Your task to perform on an android device: Open Google Chrome and click the shortcut for Amazon.com Image 0: 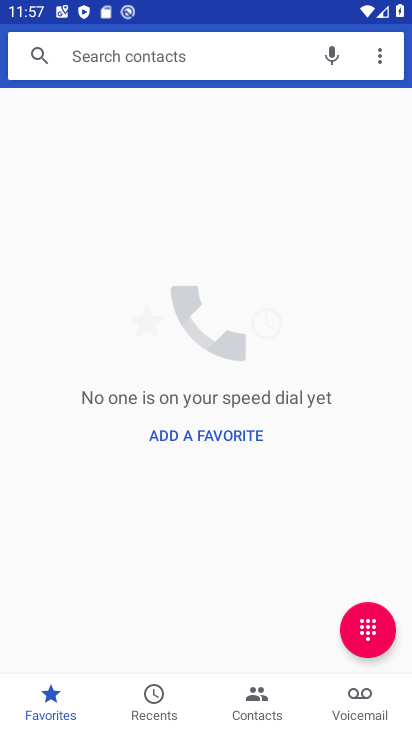
Step 0: press home button
Your task to perform on an android device: Open Google Chrome and click the shortcut for Amazon.com Image 1: 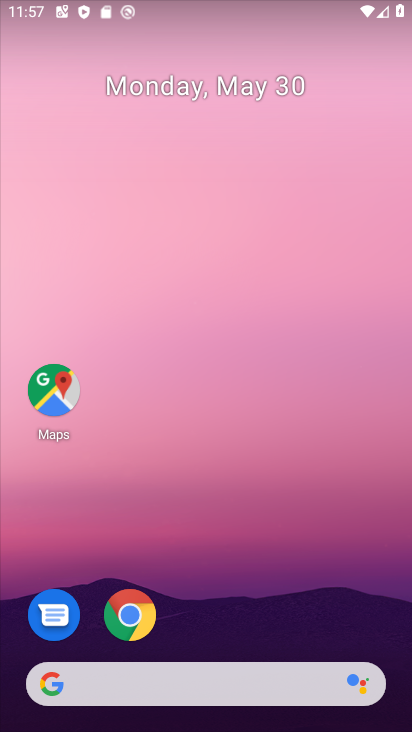
Step 1: click (142, 607)
Your task to perform on an android device: Open Google Chrome and click the shortcut for Amazon.com Image 2: 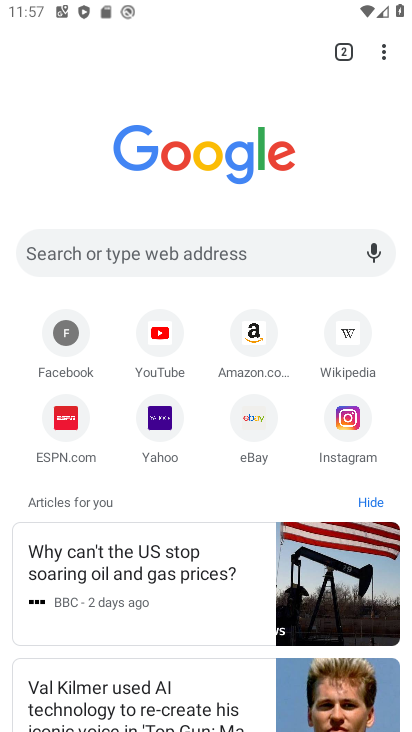
Step 2: click (250, 338)
Your task to perform on an android device: Open Google Chrome and click the shortcut for Amazon.com Image 3: 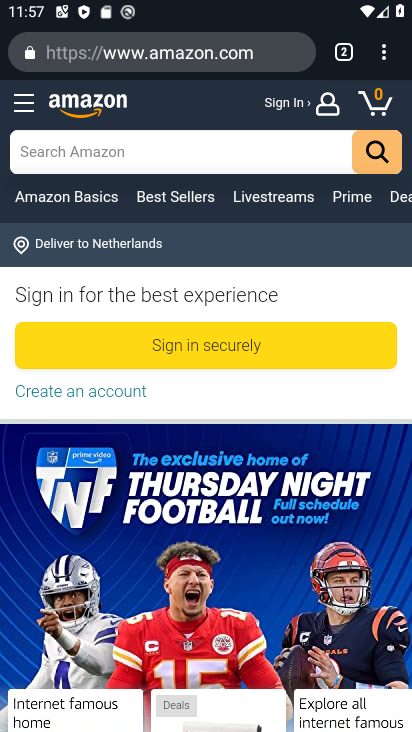
Step 3: task complete